Your task to perform on an android device: Open Maps and search for coffee Image 0: 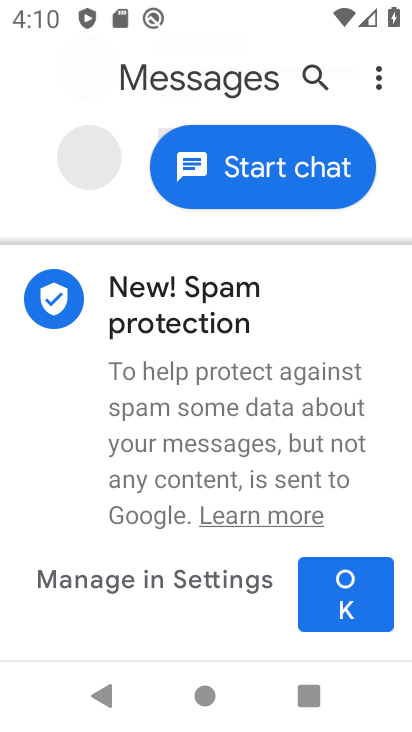
Step 0: press back button
Your task to perform on an android device: Open Maps and search for coffee Image 1: 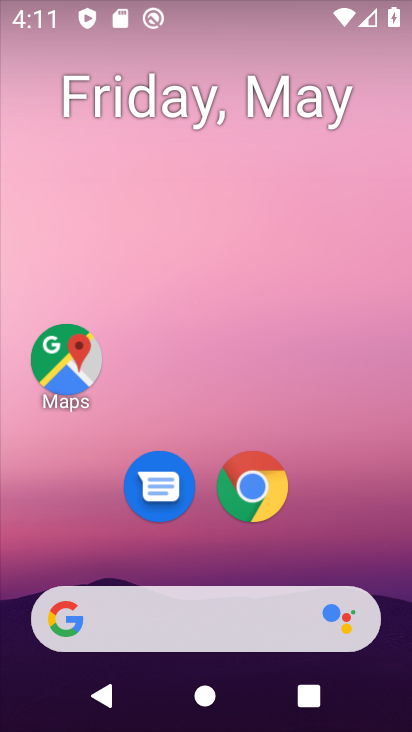
Step 1: drag from (375, 552) to (89, 7)
Your task to perform on an android device: Open Maps and search for coffee Image 2: 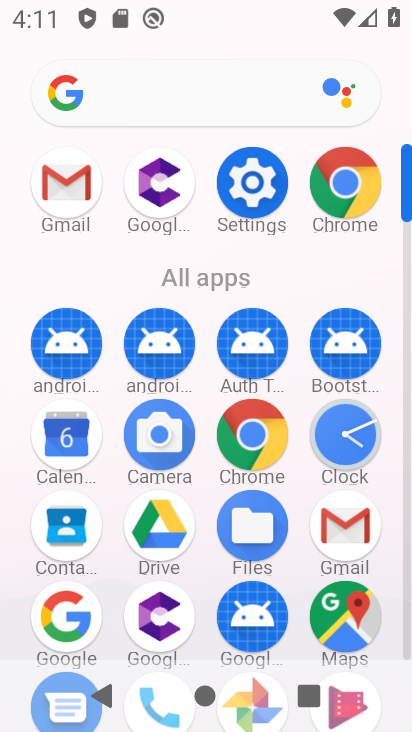
Step 2: drag from (13, 513) to (15, 184)
Your task to perform on an android device: Open Maps and search for coffee Image 3: 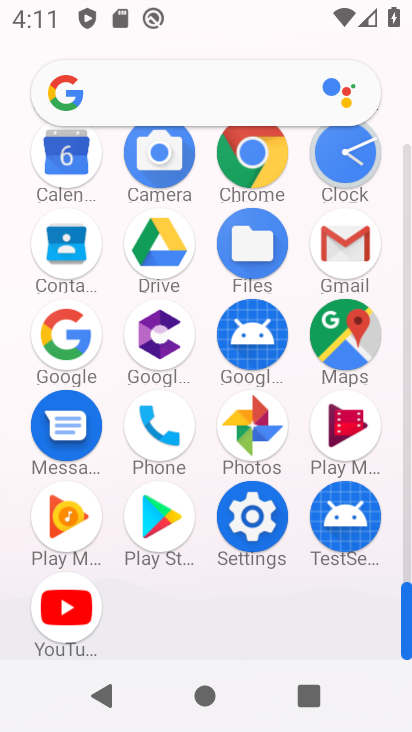
Step 3: click (351, 330)
Your task to perform on an android device: Open Maps and search for coffee Image 4: 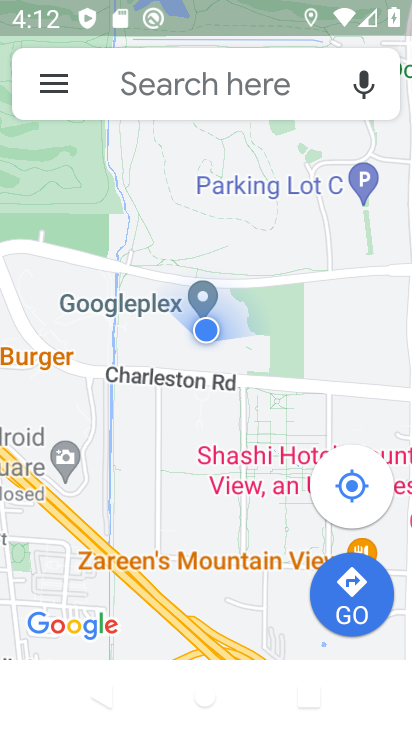
Step 4: click (291, 85)
Your task to perform on an android device: Open Maps and search for coffee Image 5: 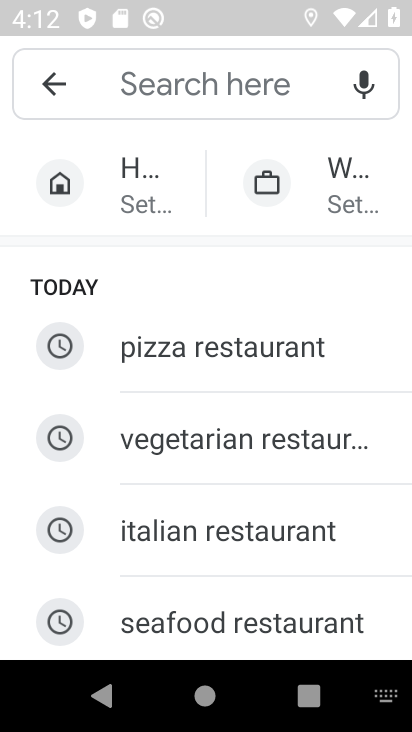
Step 5: type "coffee"
Your task to perform on an android device: Open Maps and search for coffee Image 6: 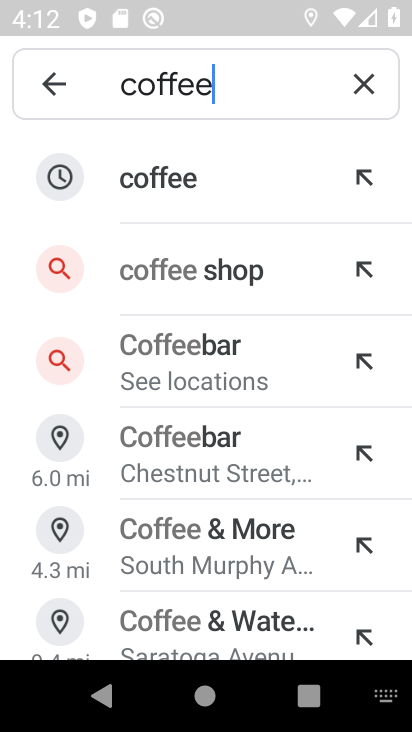
Step 6: click (230, 177)
Your task to perform on an android device: Open Maps and search for coffee Image 7: 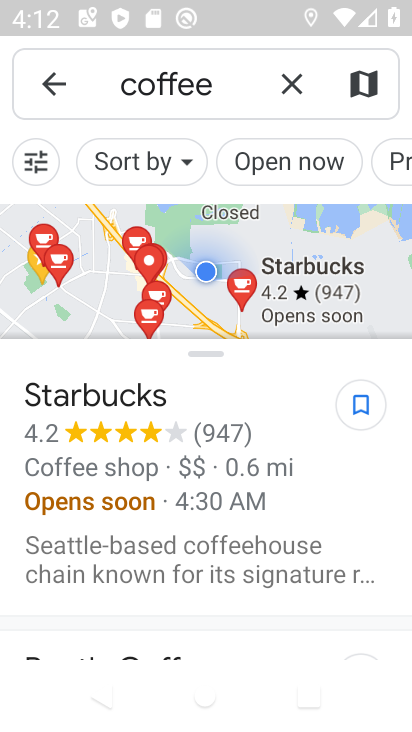
Step 7: task complete